Your task to perform on an android device: Go to location settings Image 0: 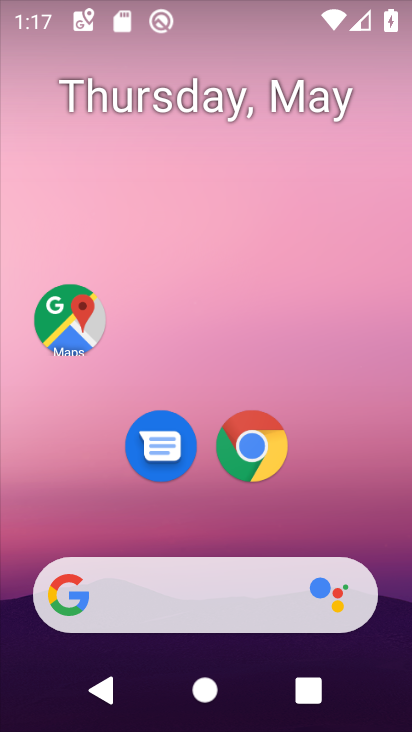
Step 0: drag from (201, 529) to (251, 75)
Your task to perform on an android device: Go to location settings Image 1: 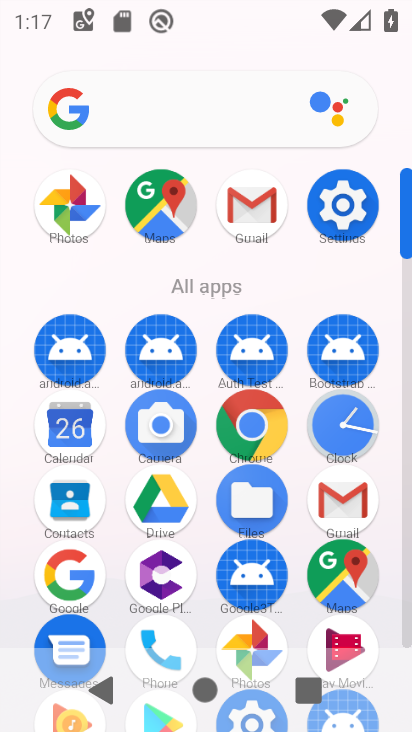
Step 1: click (366, 193)
Your task to perform on an android device: Go to location settings Image 2: 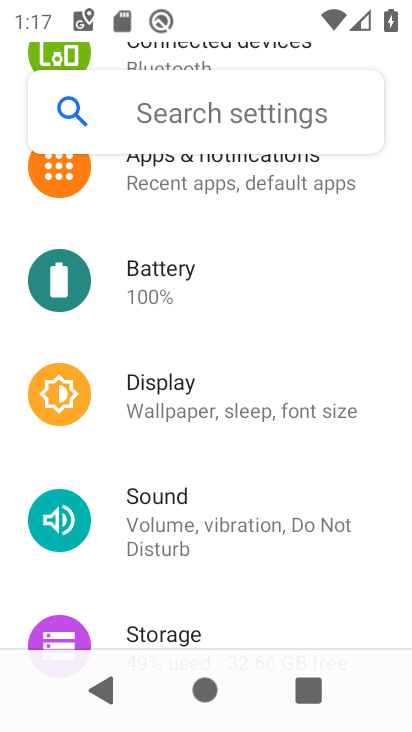
Step 2: drag from (189, 537) to (241, 287)
Your task to perform on an android device: Go to location settings Image 3: 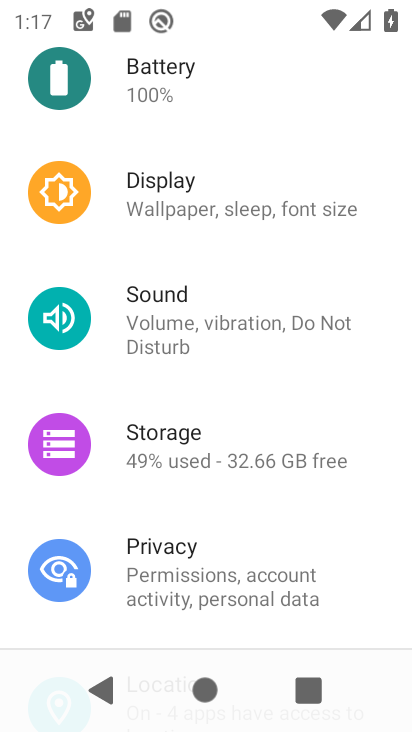
Step 3: drag from (173, 495) to (228, 233)
Your task to perform on an android device: Go to location settings Image 4: 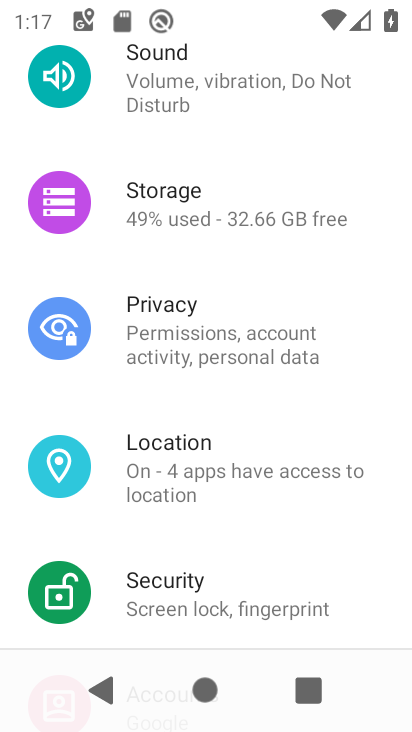
Step 4: click (209, 472)
Your task to perform on an android device: Go to location settings Image 5: 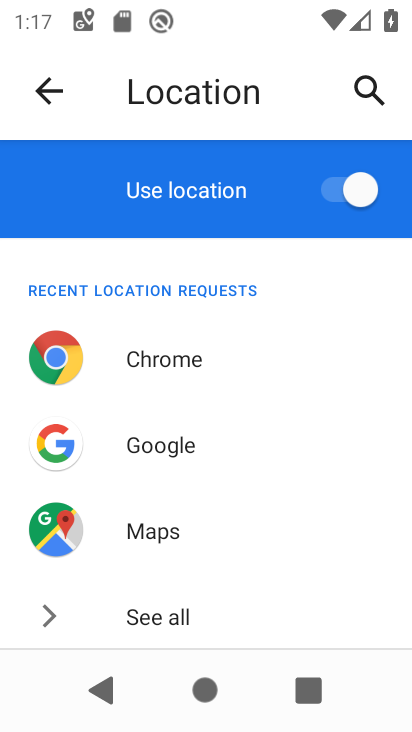
Step 5: task complete